Your task to perform on an android device: View the shopping cart on target. Search for bose soundsport free on target, select the first entry, and add it to the cart. Image 0: 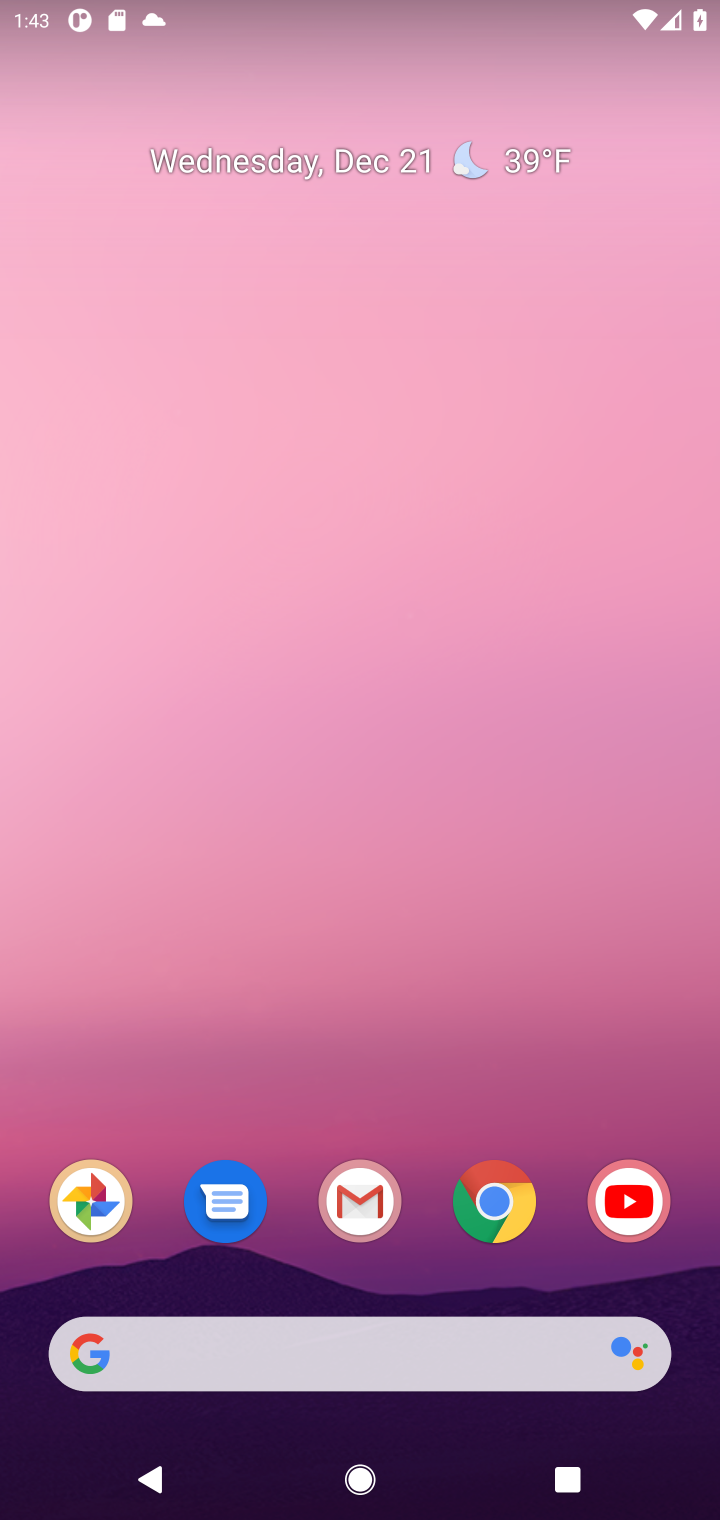
Step 0: click (491, 1204)
Your task to perform on an android device: View the shopping cart on target. Search for bose soundsport free on target, select the first entry, and add it to the cart. Image 1: 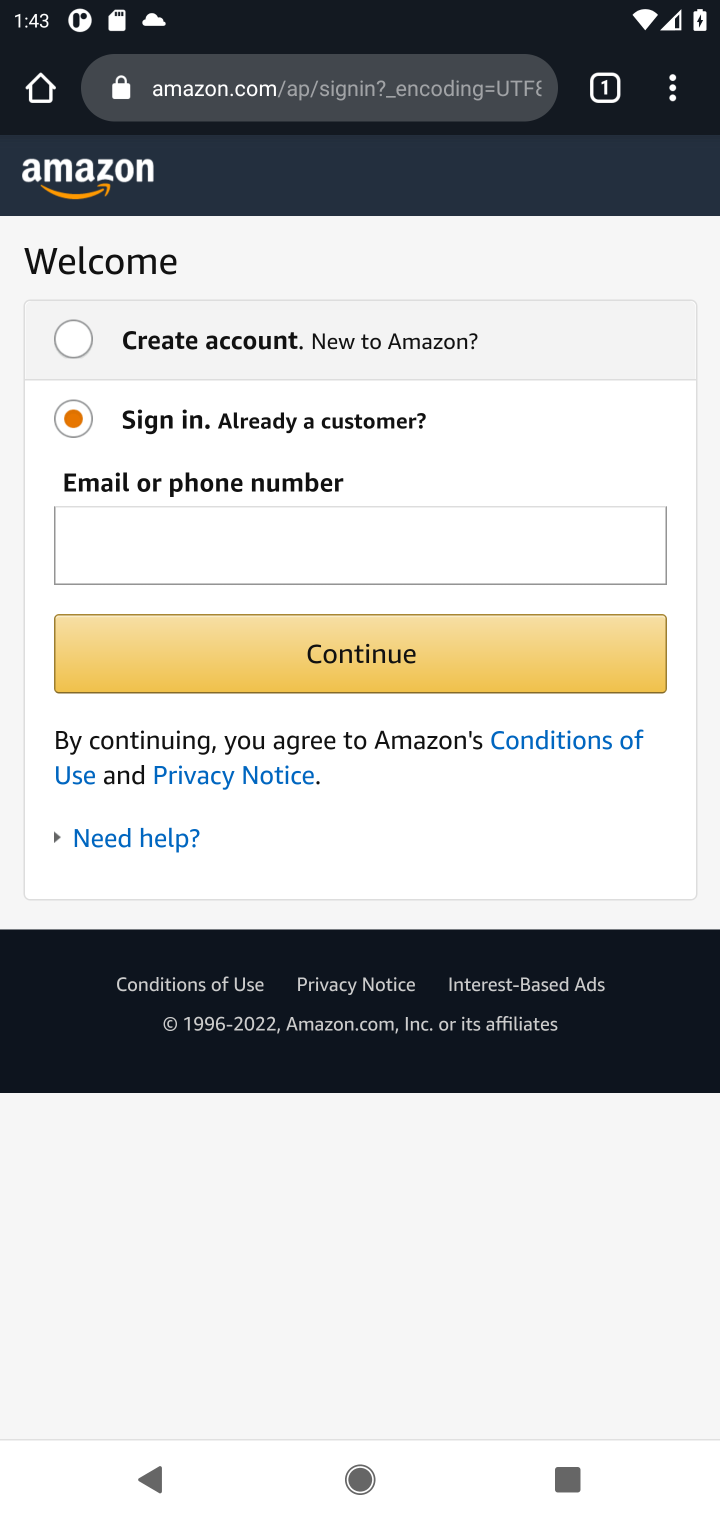
Step 1: click (344, 86)
Your task to perform on an android device: View the shopping cart on target. Search for bose soundsport free on target, select the first entry, and add it to the cart. Image 2: 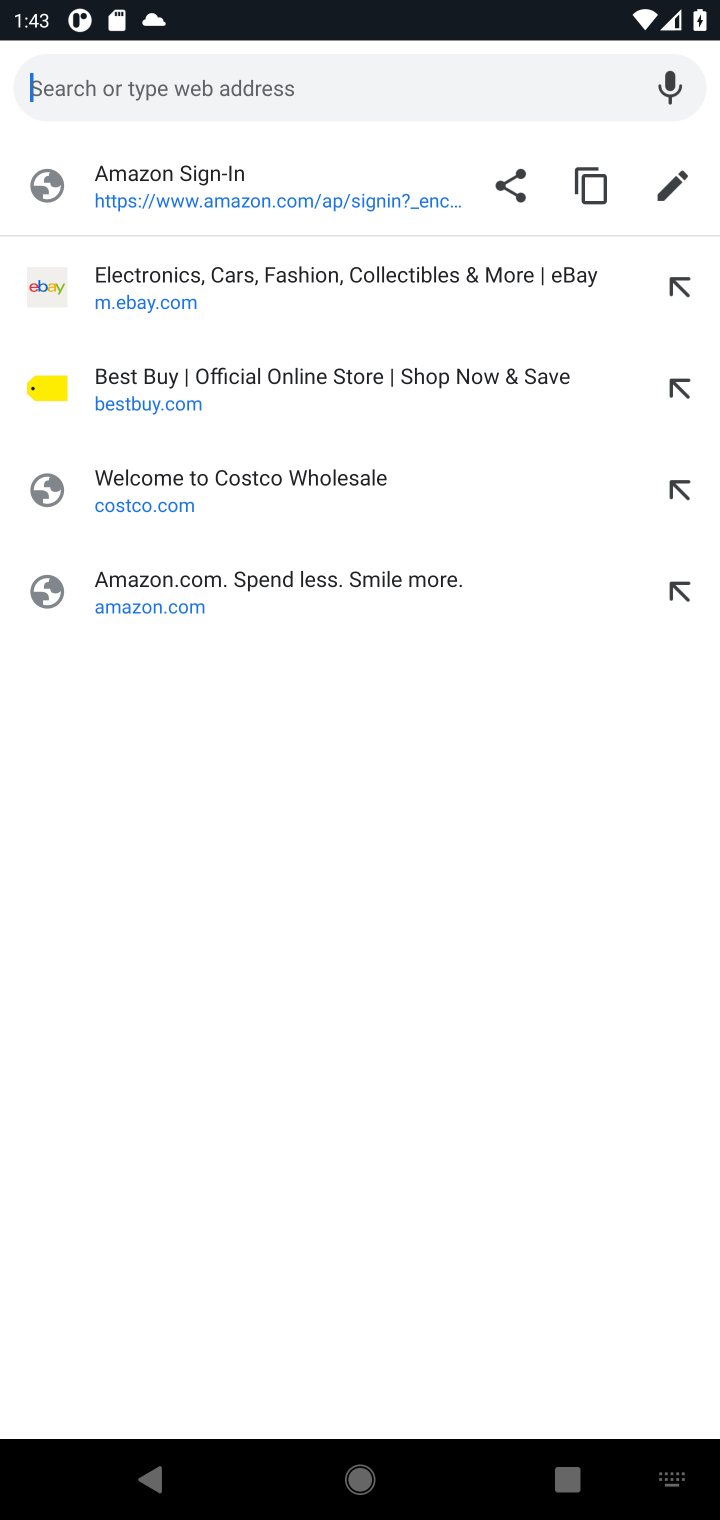
Step 2: type "target.com"
Your task to perform on an android device: View the shopping cart on target. Search for bose soundsport free on target, select the first entry, and add it to the cart. Image 3: 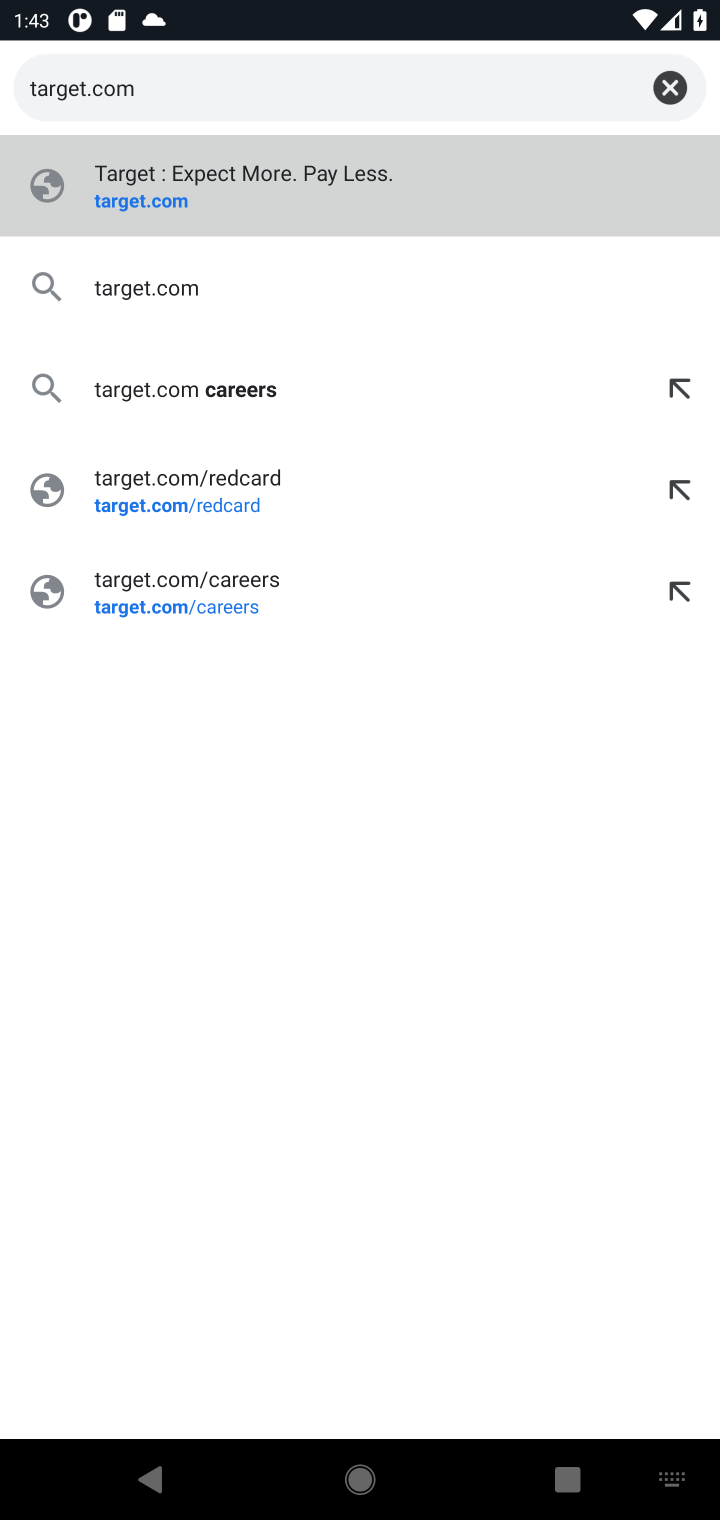
Step 3: click (130, 211)
Your task to perform on an android device: View the shopping cart on target. Search for bose soundsport free on target, select the first entry, and add it to the cart. Image 4: 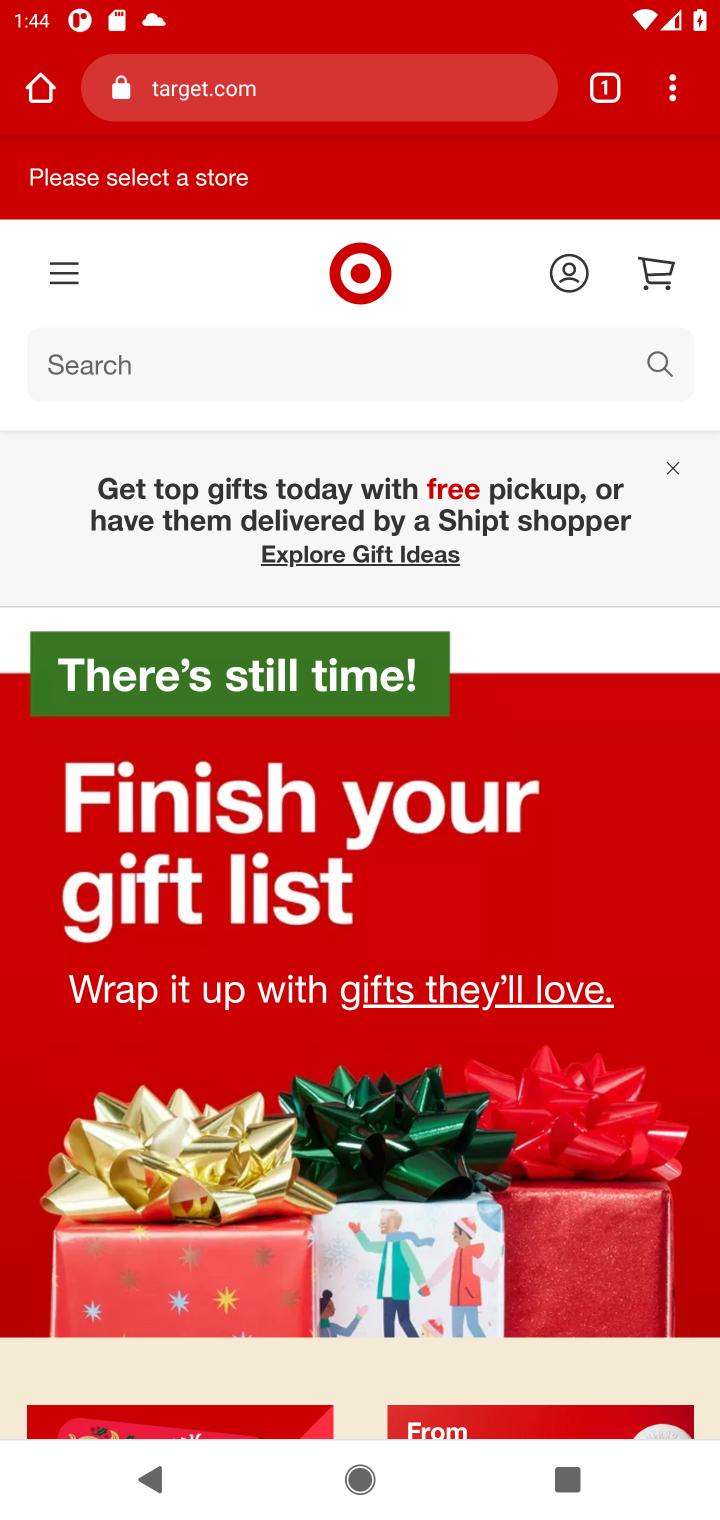
Step 4: click (663, 275)
Your task to perform on an android device: View the shopping cart on target. Search for bose soundsport free on target, select the first entry, and add it to the cart. Image 5: 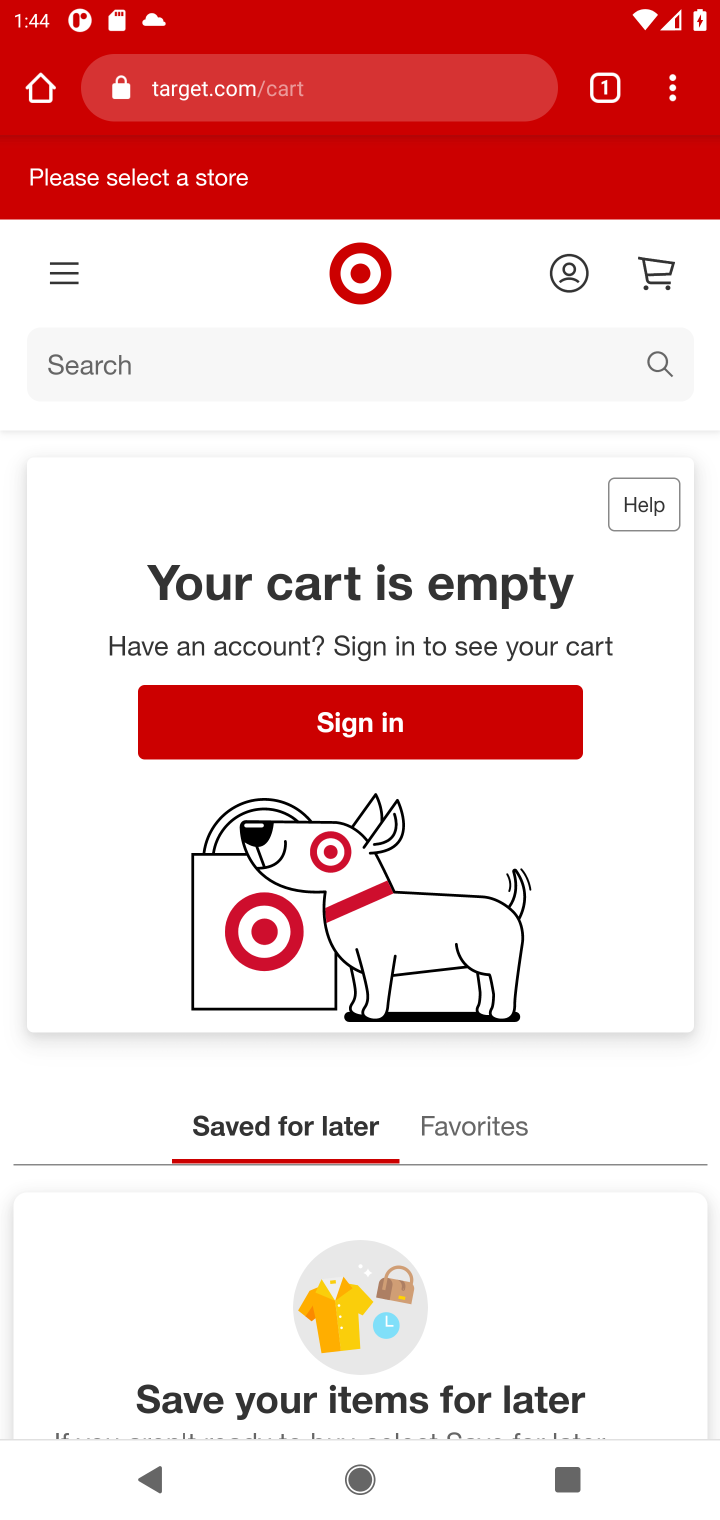
Step 5: click (64, 363)
Your task to perform on an android device: View the shopping cart on target. Search for bose soundsport free on target, select the first entry, and add it to the cart. Image 6: 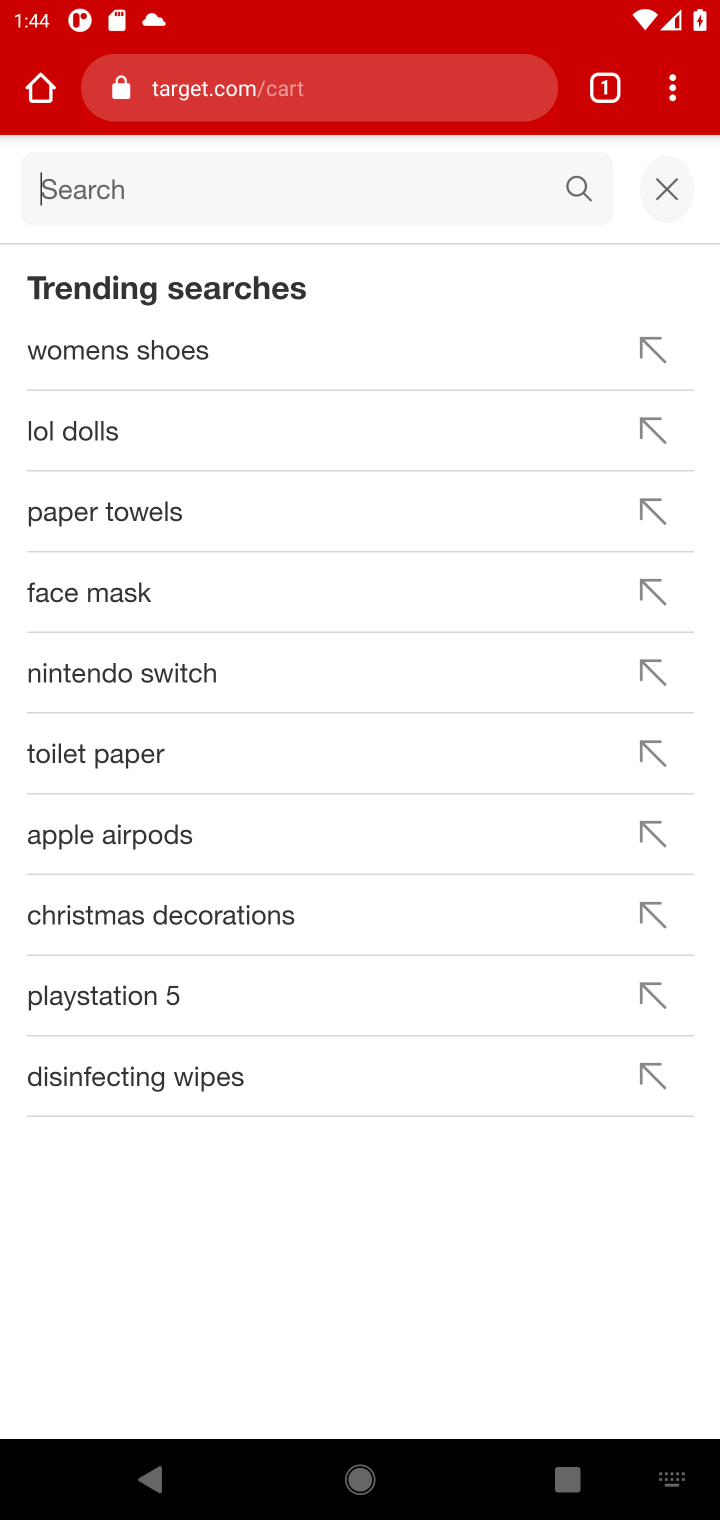
Step 6: type " bose soundsport free"
Your task to perform on an android device: View the shopping cart on target. Search for bose soundsport free on target, select the first entry, and add it to the cart. Image 7: 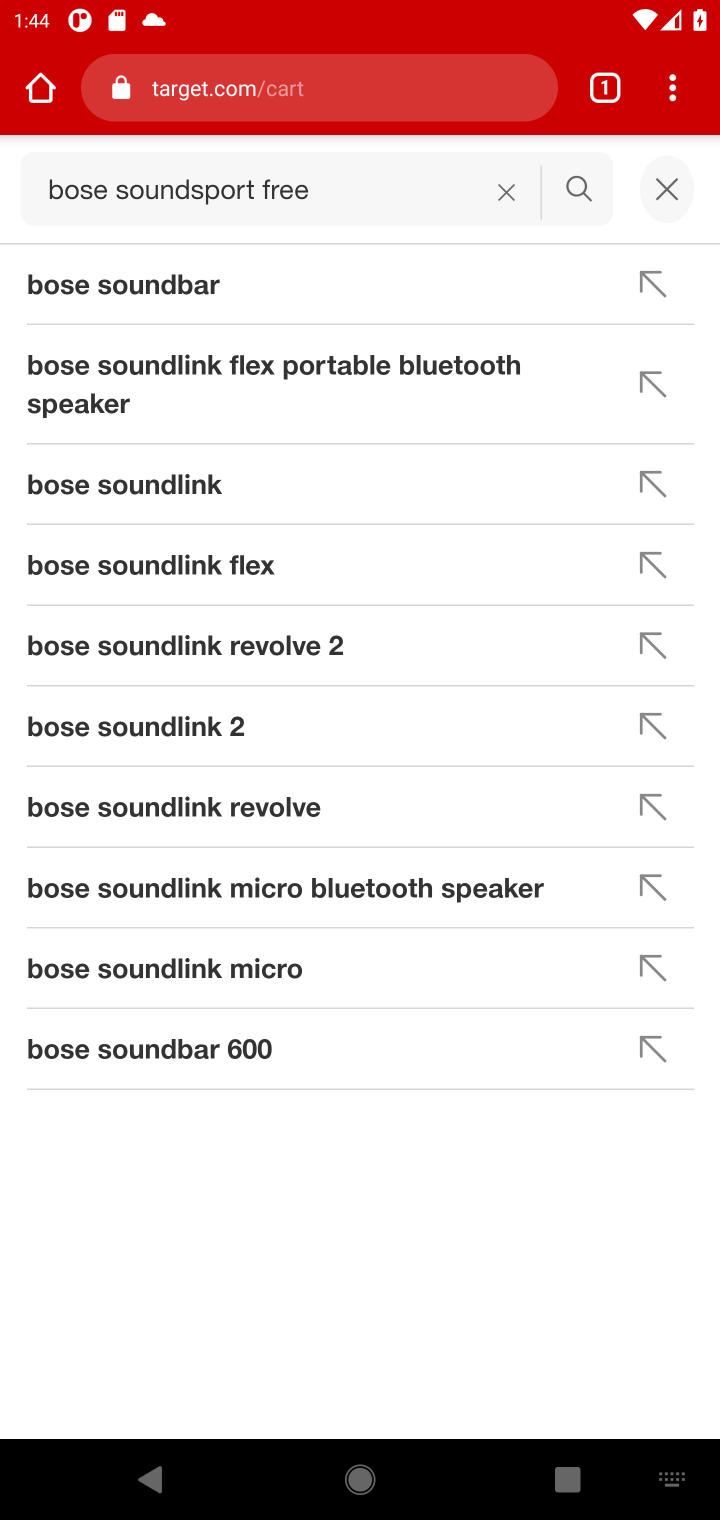
Step 7: click (574, 196)
Your task to perform on an android device: View the shopping cart on target. Search for bose soundsport free on target, select the first entry, and add it to the cart. Image 8: 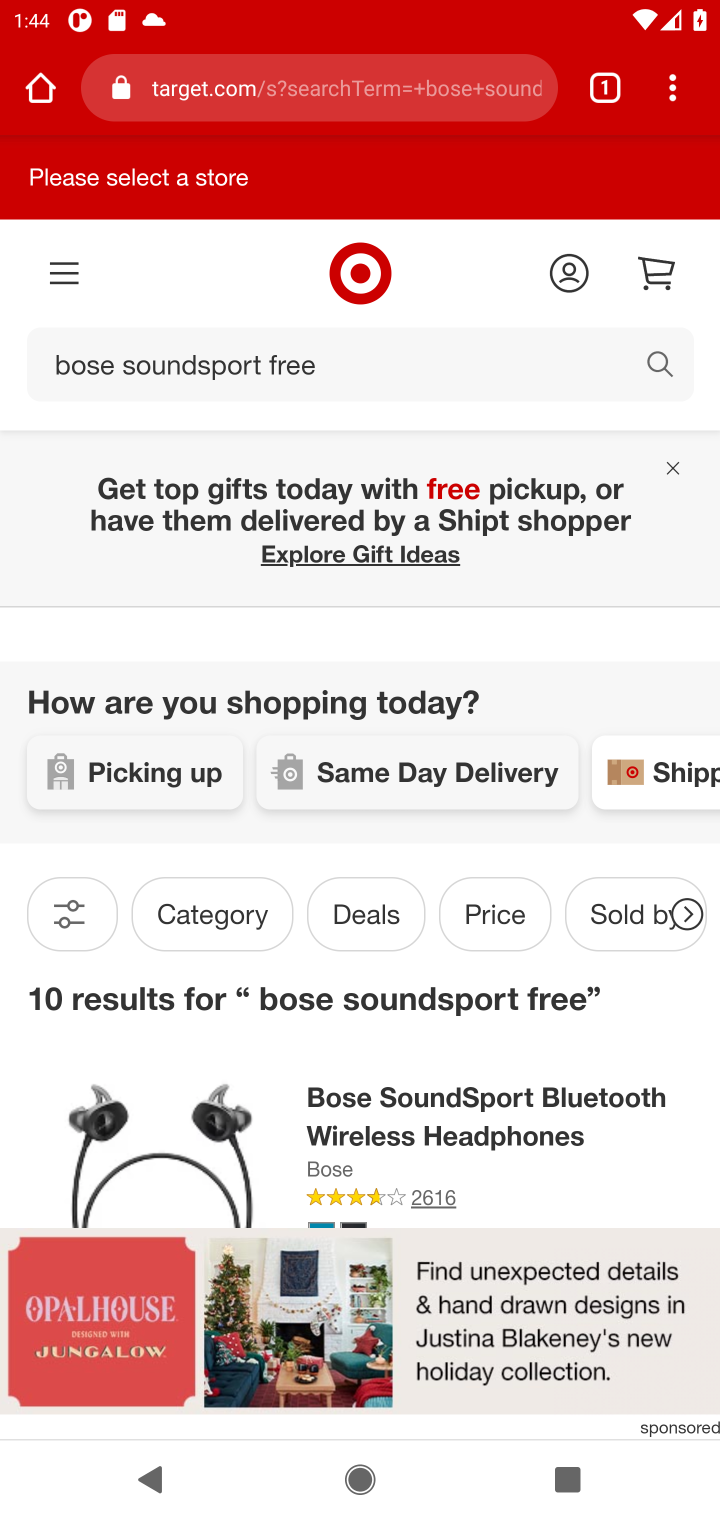
Step 8: task complete